Your task to perform on an android device: install app "Speedtest by Ookla" Image 0: 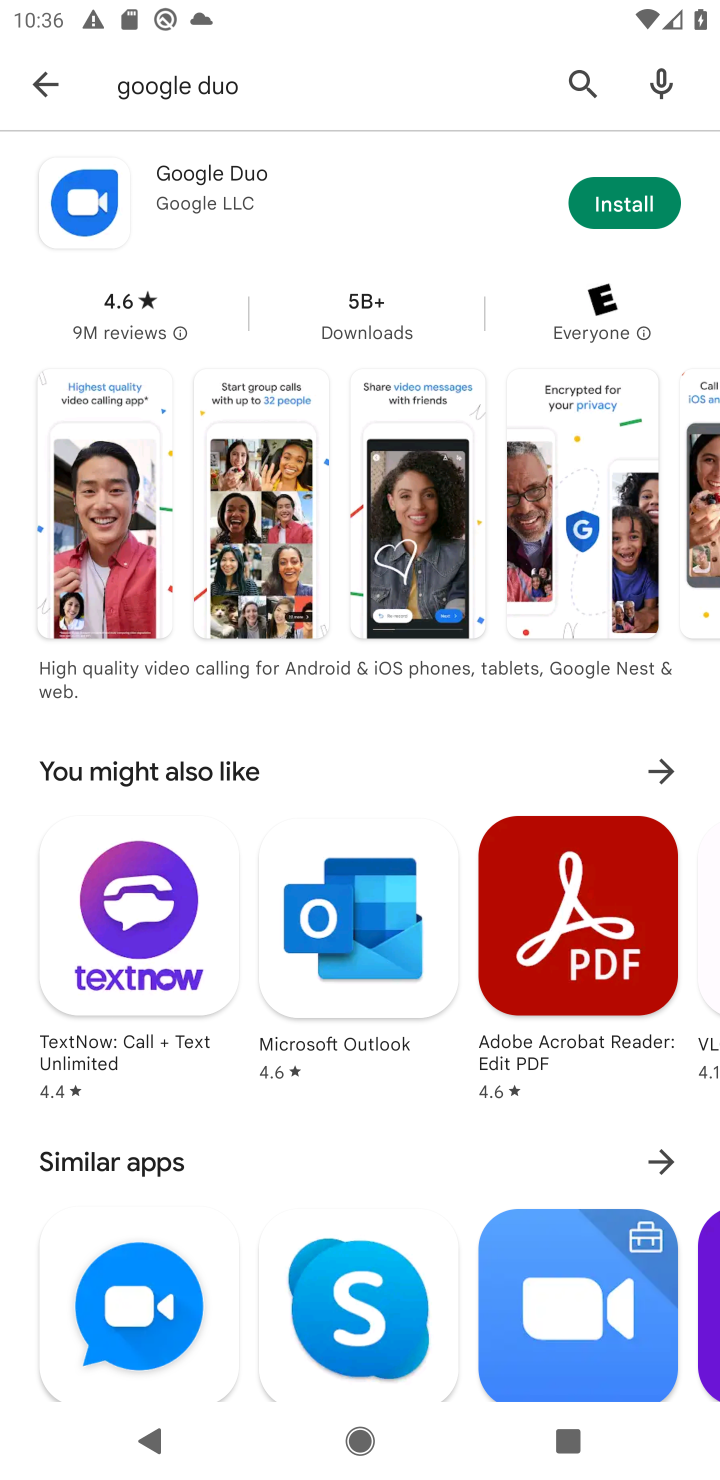
Step 0: click (265, 84)
Your task to perform on an android device: install app "Speedtest by Ookla" Image 1: 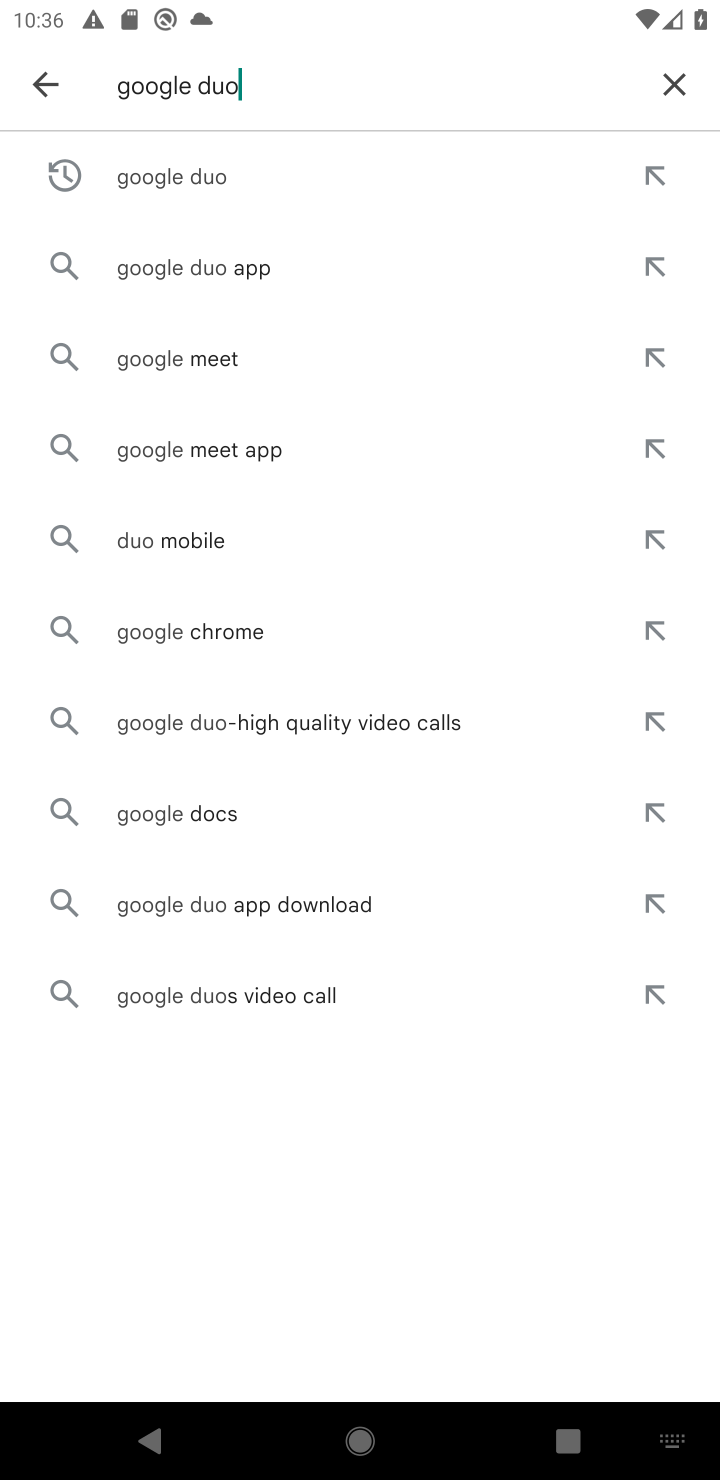
Step 1: click (671, 86)
Your task to perform on an android device: install app "Speedtest by Ookla" Image 2: 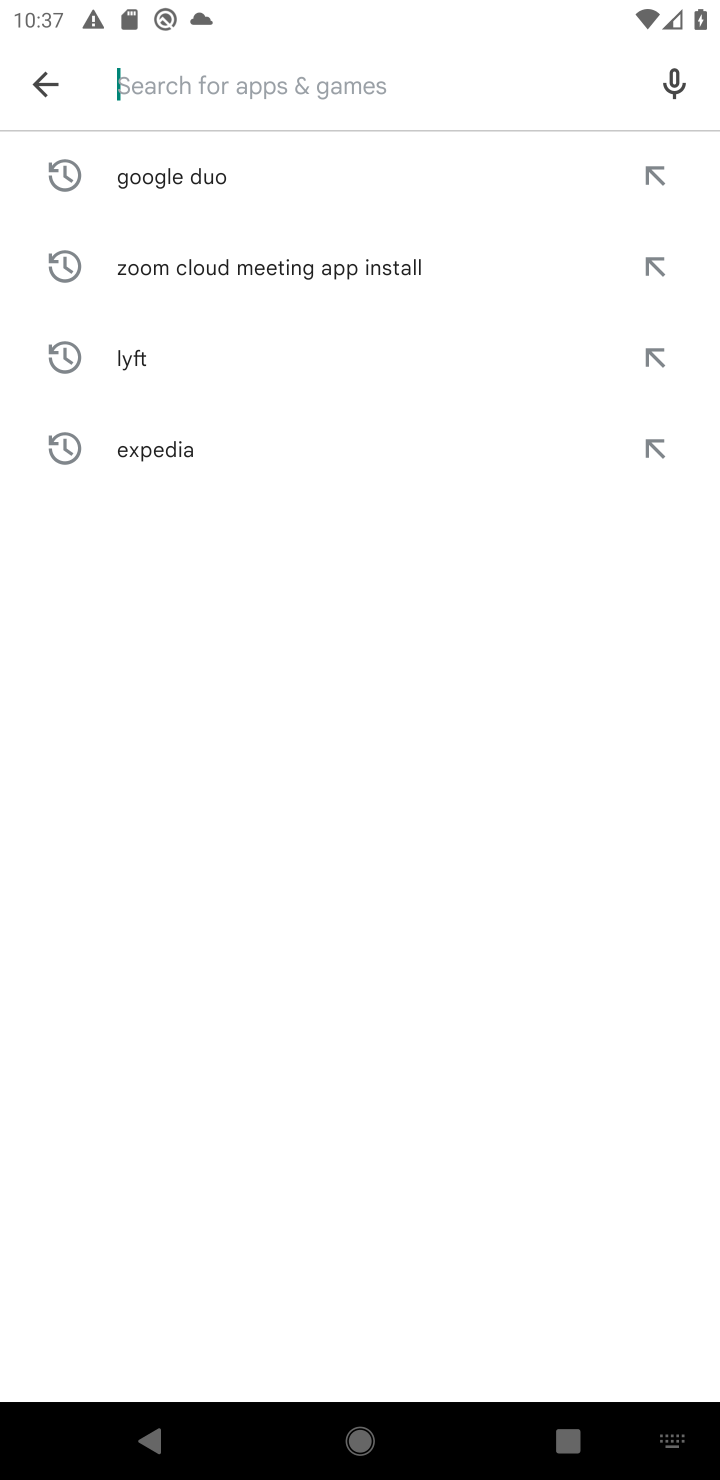
Step 2: type "speedtest by Ookla"
Your task to perform on an android device: install app "Speedtest by Ookla" Image 3: 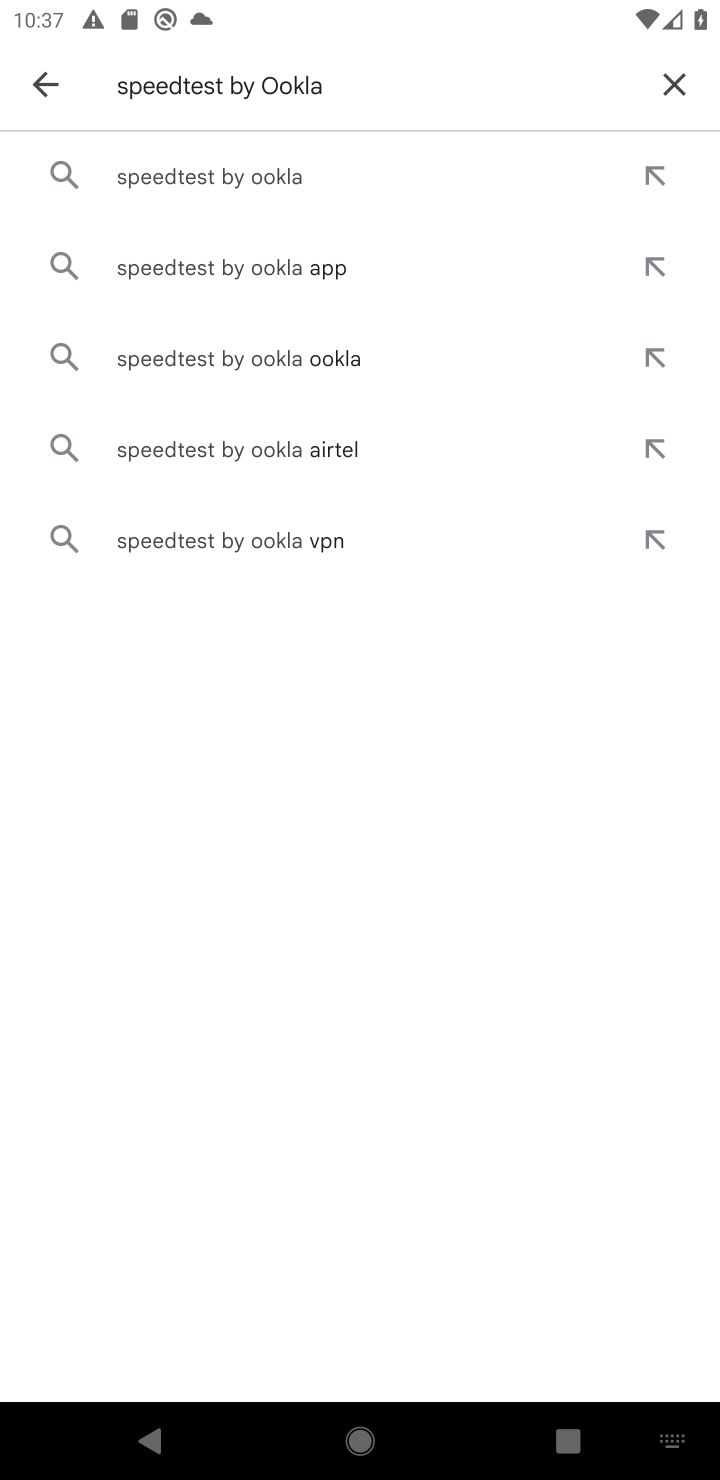
Step 3: click (184, 180)
Your task to perform on an android device: install app "Speedtest by Ookla" Image 4: 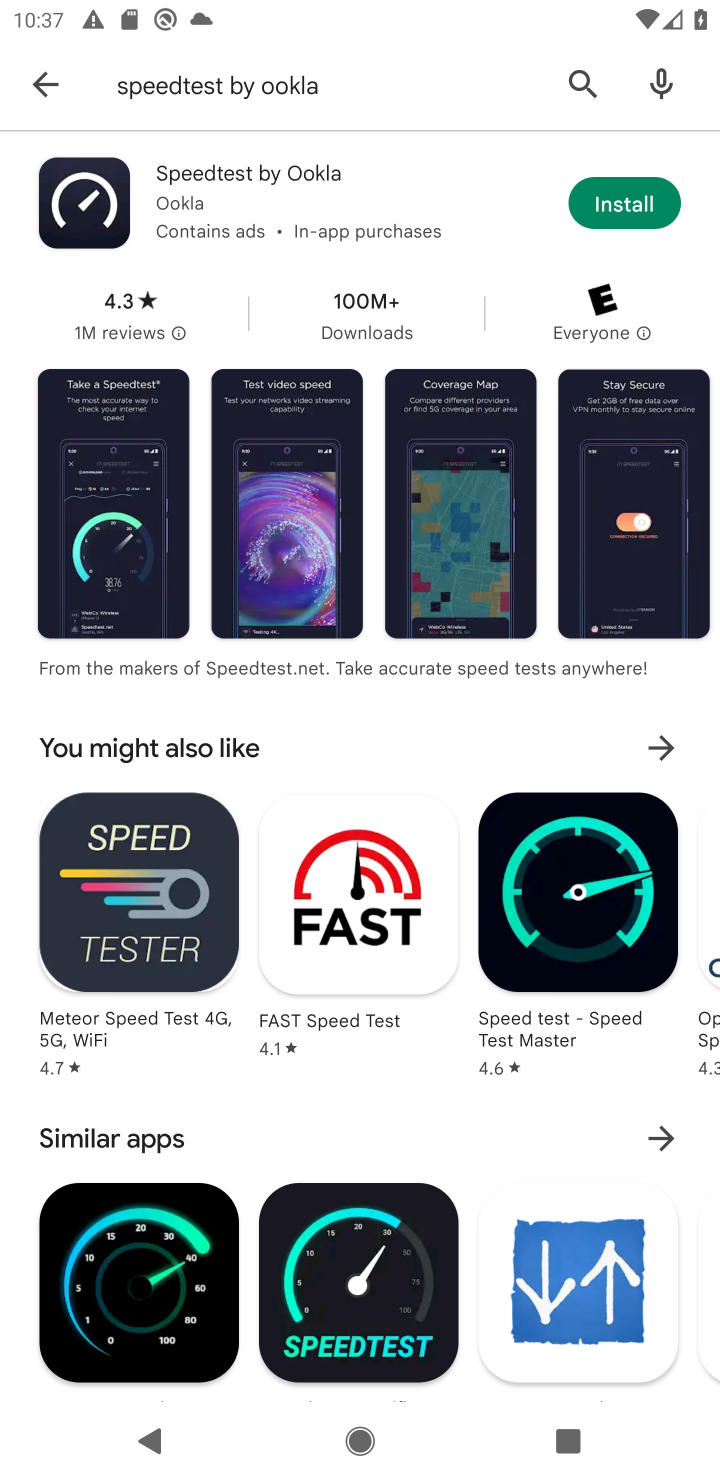
Step 4: click (619, 215)
Your task to perform on an android device: install app "Speedtest by Ookla" Image 5: 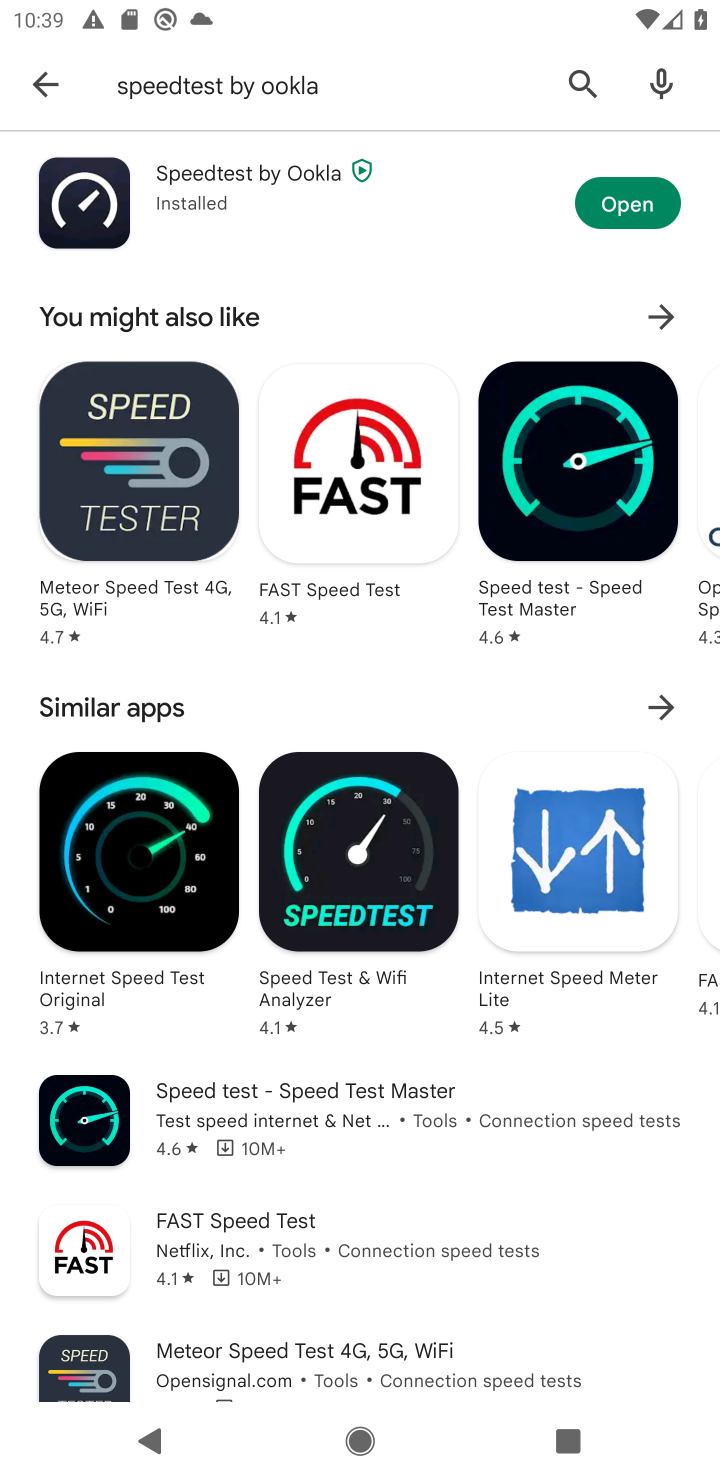
Step 5: task complete